Your task to perform on an android device: What's the weather today? Image 0: 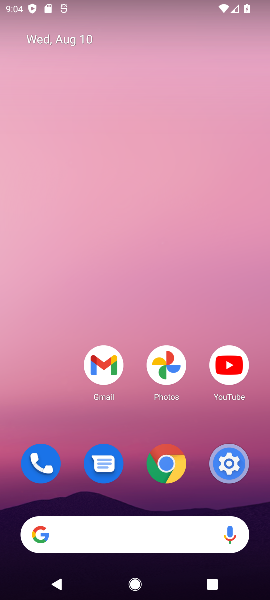
Step 0: click (80, 526)
Your task to perform on an android device: What's the weather today? Image 1: 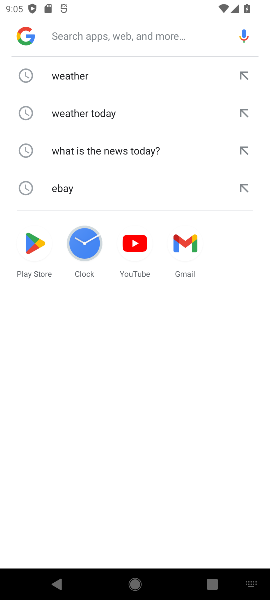
Step 1: type "What's the weather today?"
Your task to perform on an android device: What's the weather today? Image 2: 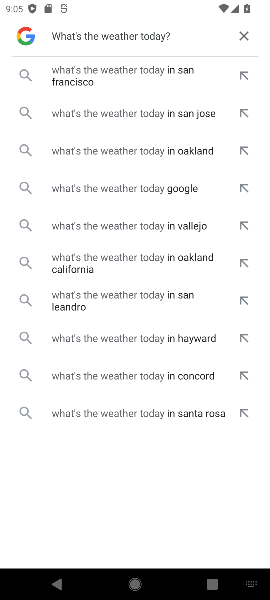
Step 2: task complete